Your task to perform on an android device: see tabs open on other devices in the chrome app Image 0: 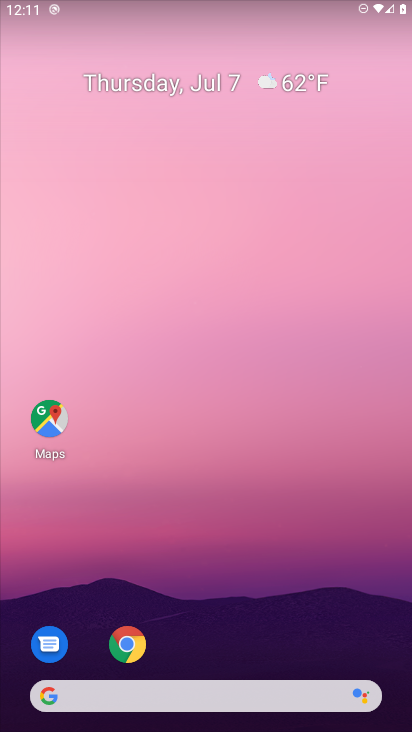
Step 0: press home button
Your task to perform on an android device: see tabs open on other devices in the chrome app Image 1: 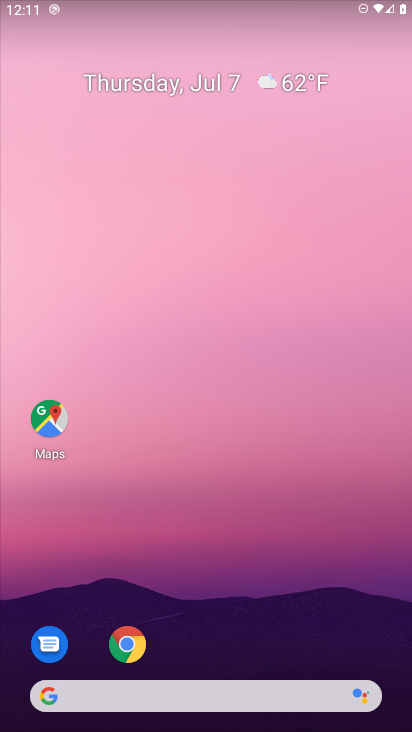
Step 1: press home button
Your task to perform on an android device: see tabs open on other devices in the chrome app Image 2: 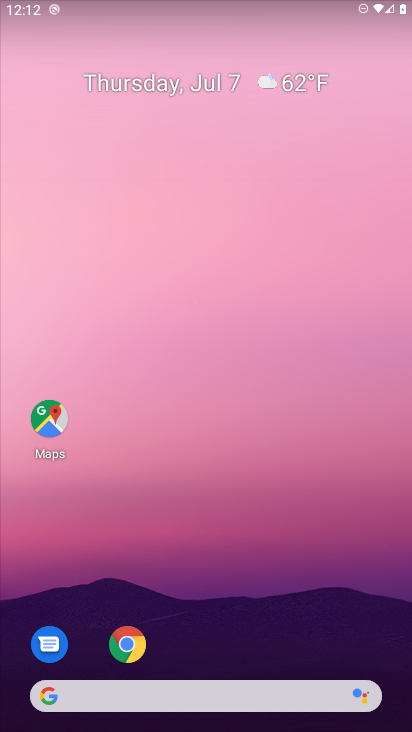
Step 2: click (128, 634)
Your task to perform on an android device: see tabs open on other devices in the chrome app Image 3: 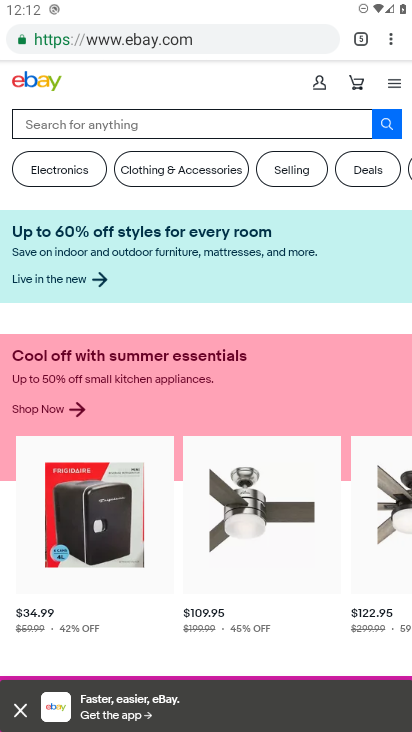
Step 3: click (394, 40)
Your task to perform on an android device: see tabs open on other devices in the chrome app Image 4: 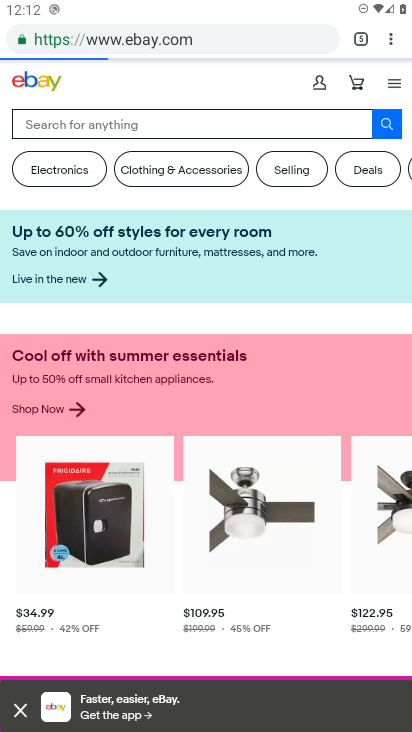
Step 4: task complete